Your task to perform on an android device: turn vacation reply on in the gmail app Image 0: 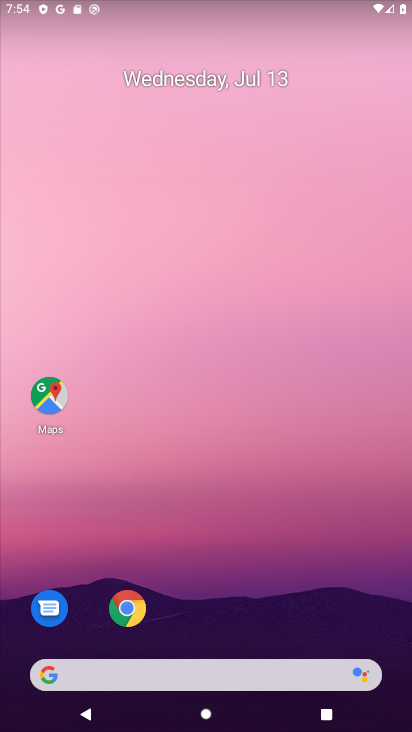
Step 0: drag from (256, 623) to (212, 275)
Your task to perform on an android device: turn vacation reply on in the gmail app Image 1: 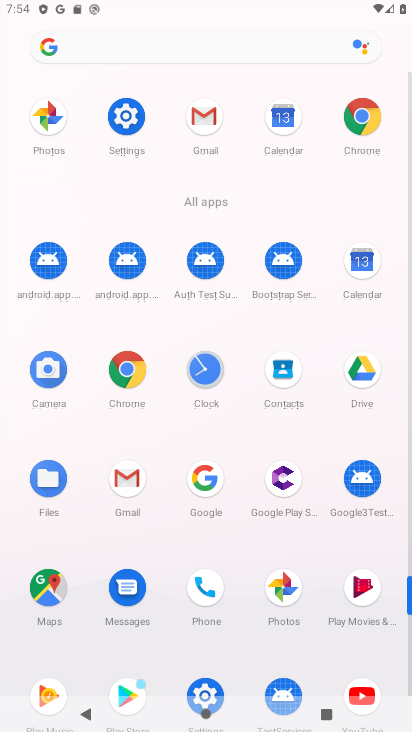
Step 1: click (130, 491)
Your task to perform on an android device: turn vacation reply on in the gmail app Image 2: 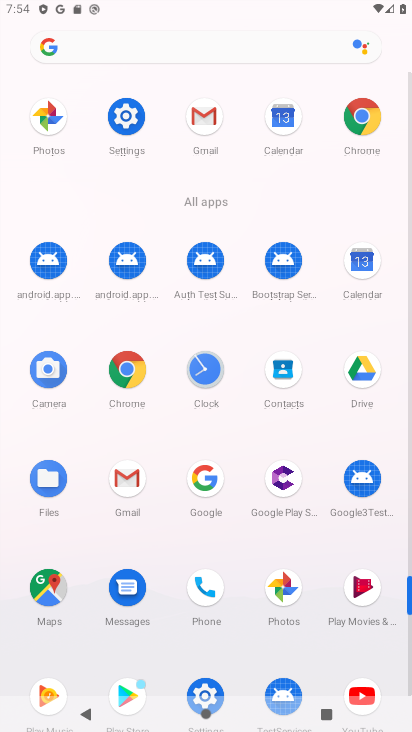
Step 2: click (129, 491)
Your task to perform on an android device: turn vacation reply on in the gmail app Image 3: 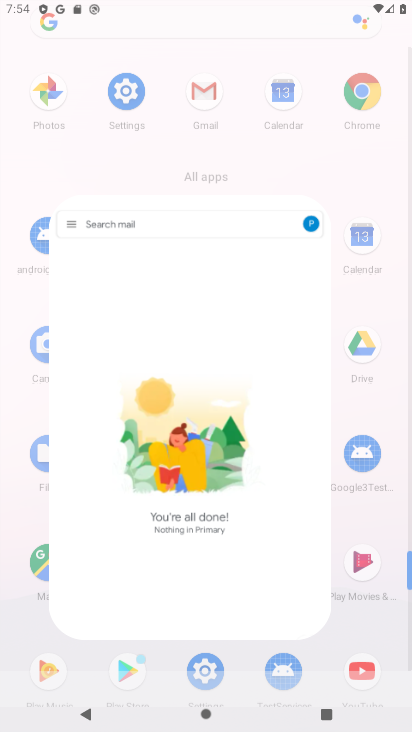
Step 3: click (128, 492)
Your task to perform on an android device: turn vacation reply on in the gmail app Image 4: 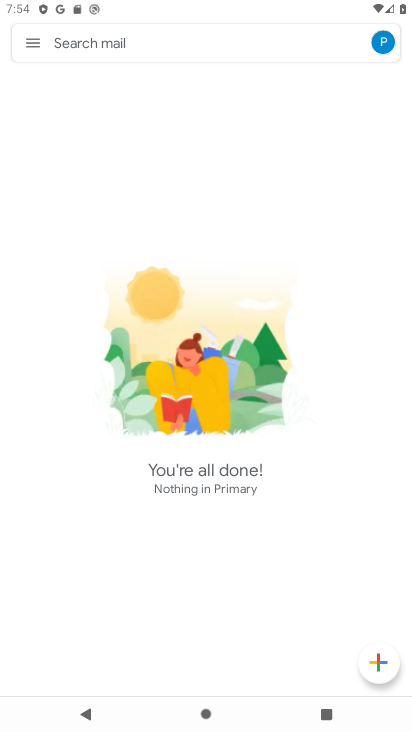
Step 4: drag from (28, 48) to (32, 152)
Your task to perform on an android device: turn vacation reply on in the gmail app Image 5: 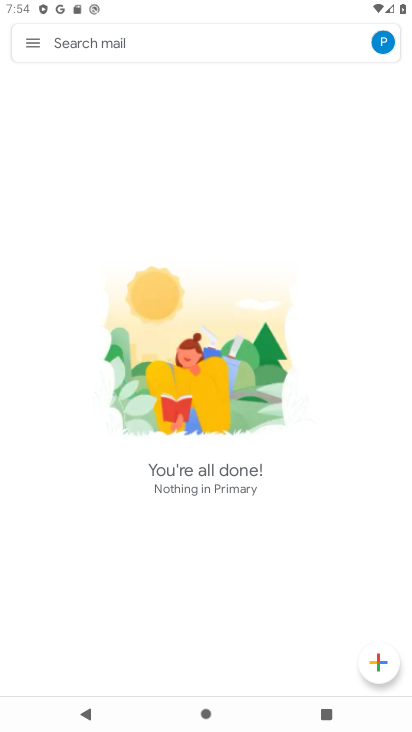
Step 5: drag from (34, 41) to (43, 77)
Your task to perform on an android device: turn vacation reply on in the gmail app Image 6: 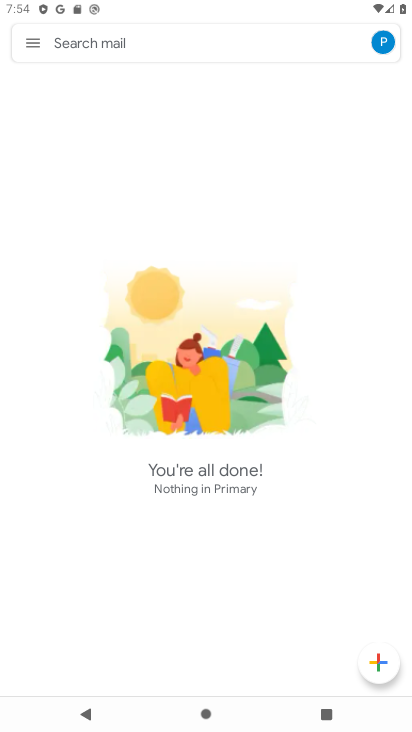
Step 6: click (34, 52)
Your task to perform on an android device: turn vacation reply on in the gmail app Image 7: 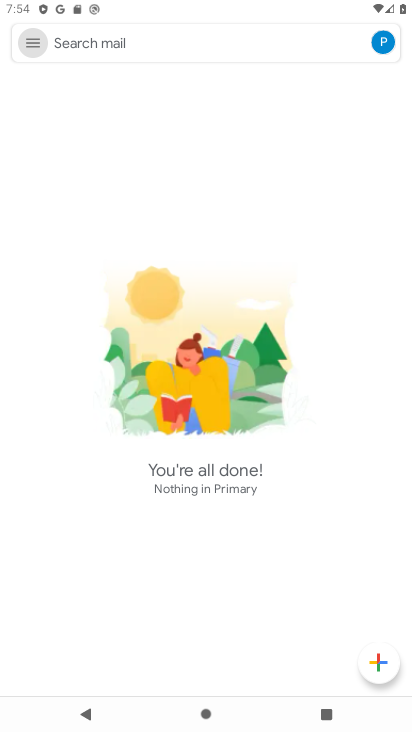
Step 7: click (34, 52)
Your task to perform on an android device: turn vacation reply on in the gmail app Image 8: 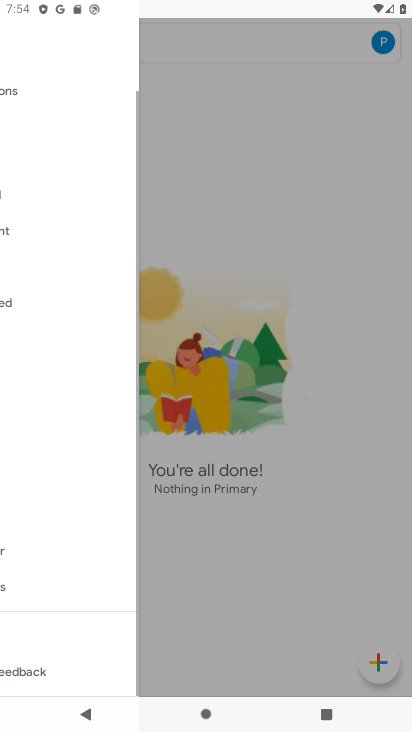
Step 8: click (37, 45)
Your task to perform on an android device: turn vacation reply on in the gmail app Image 9: 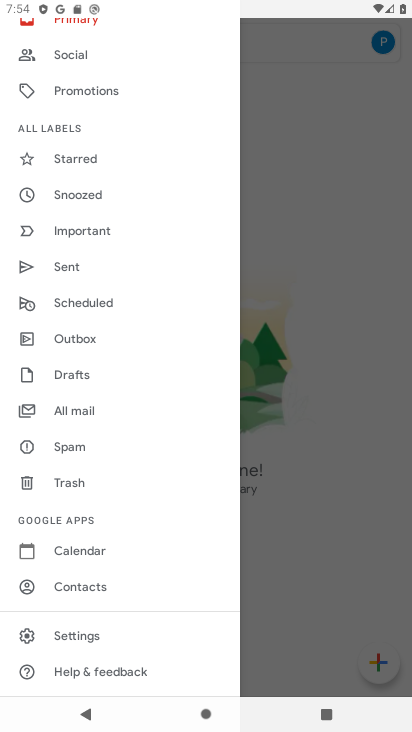
Step 9: click (80, 630)
Your task to perform on an android device: turn vacation reply on in the gmail app Image 10: 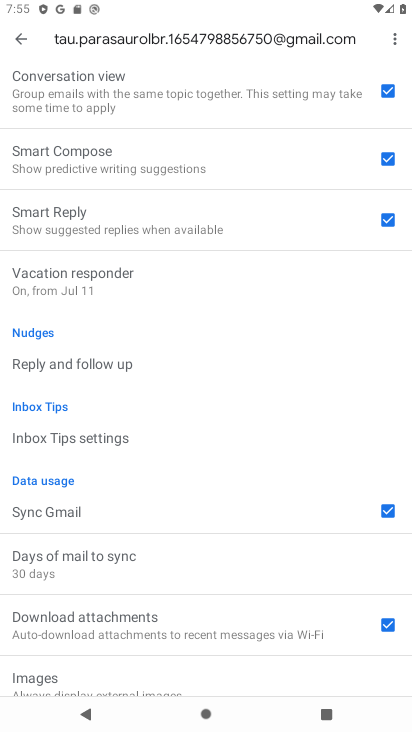
Step 10: drag from (126, 503) to (119, 82)
Your task to perform on an android device: turn vacation reply on in the gmail app Image 11: 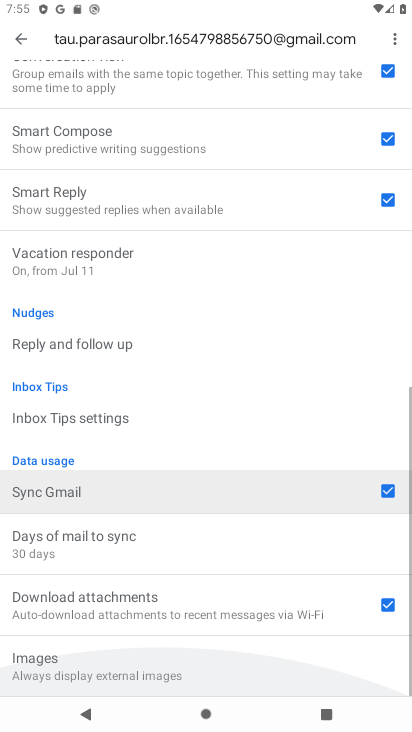
Step 11: drag from (122, 464) to (122, 323)
Your task to perform on an android device: turn vacation reply on in the gmail app Image 12: 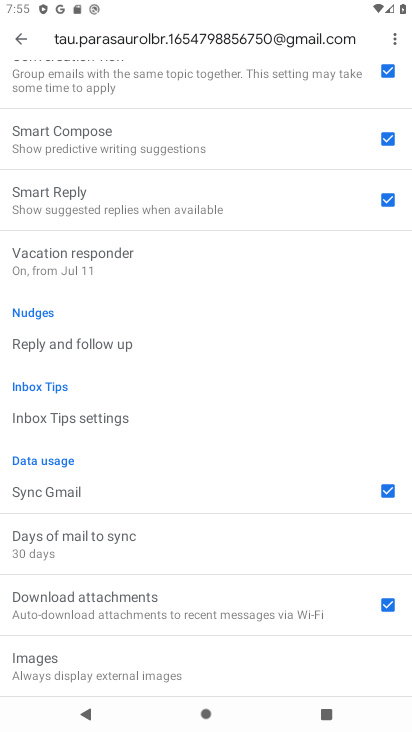
Step 12: drag from (126, 526) to (112, 185)
Your task to perform on an android device: turn vacation reply on in the gmail app Image 13: 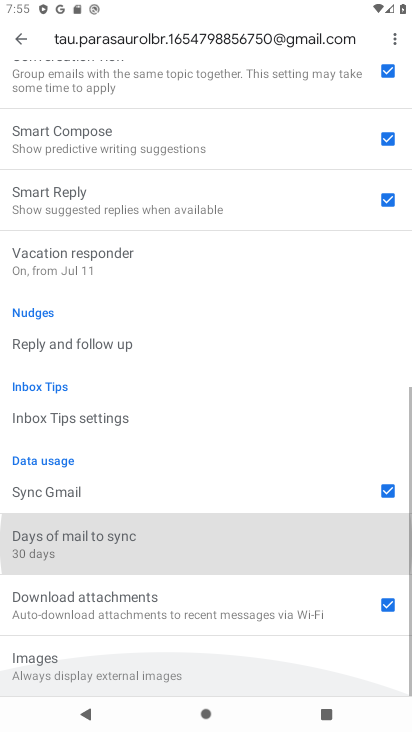
Step 13: drag from (192, 455) to (221, 212)
Your task to perform on an android device: turn vacation reply on in the gmail app Image 14: 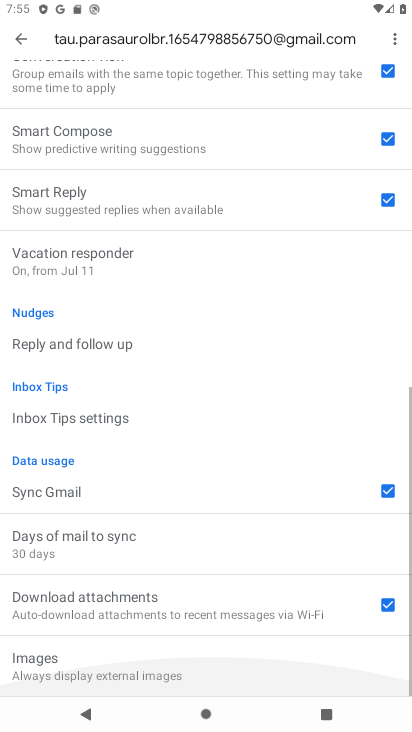
Step 14: drag from (221, 447) to (221, 240)
Your task to perform on an android device: turn vacation reply on in the gmail app Image 15: 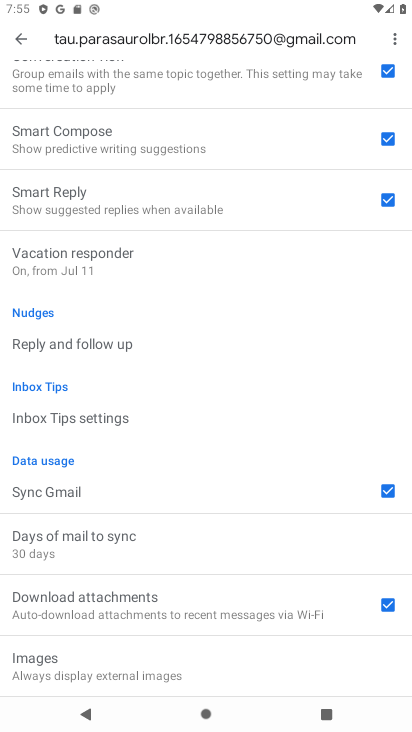
Step 15: click (46, 249)
Your task to perform on an android device: turn vacation reply on in the gmail app Image 16: 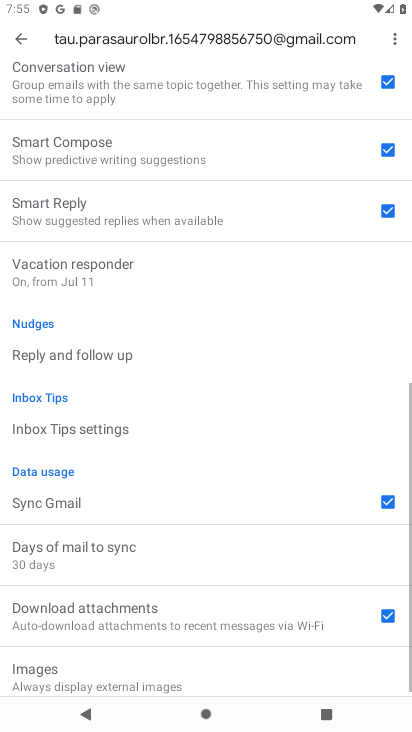
Step 16: click (51, 266)
Your task to perform on an android device: turn vacation reply on in the gmail app Image 17: 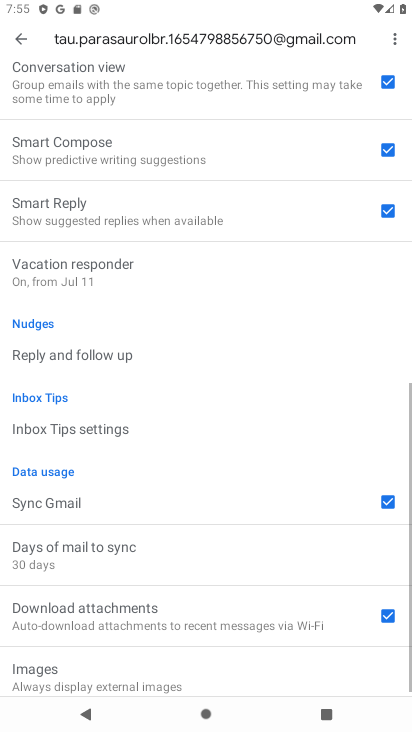
Step 17: click (51, 266)
Your task to perform on an android device: turn vacation reply on in the gmail app Image 18: 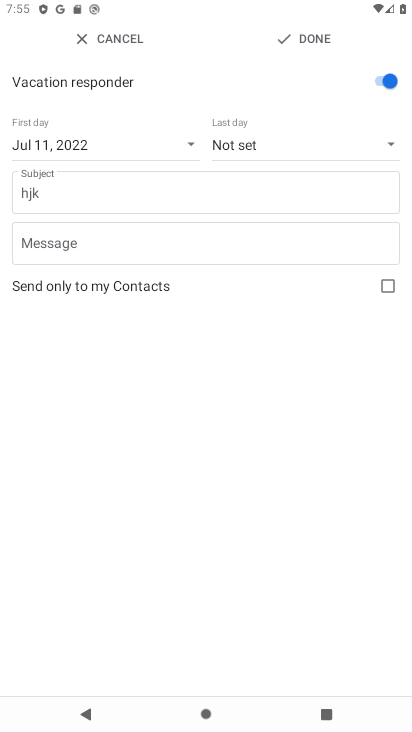
Step 18: task complete